Your task to perform on an android device: Show the shopping cart on target. Search for "razer naga" on target, select the first entry, add it to the cart, then select checkout. Image 0: 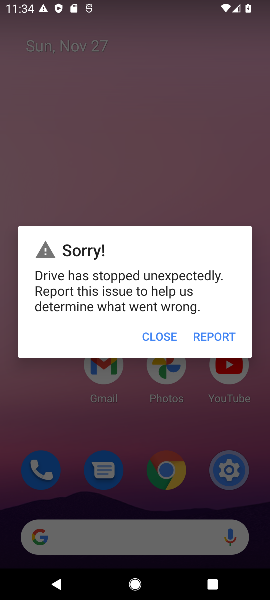
Step 0: press home button
Your task to perform on an android device: Show the shopping cart on target. Search for "razer naga" on target, select the first entry, add it to the cart, then select checkout. Image 1: 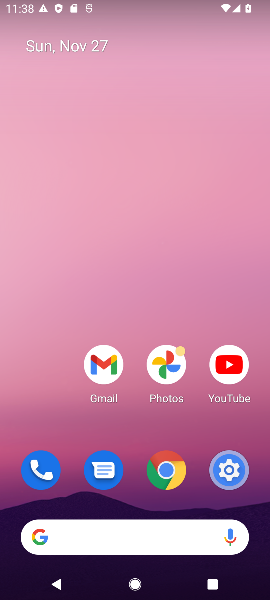
Step 1: click (150, 527)
Your task to perform on an android device: Show the shopping cart on target. Search for "razer naga" on target, select the first entry, add it to the cart, then select checkout. Image 2: 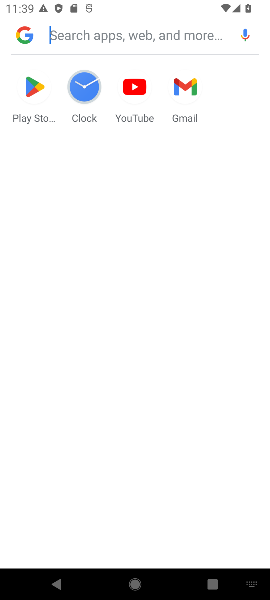
Step 2: task complete